Your task to perform on an android device: change the clock display to analog Image 0: 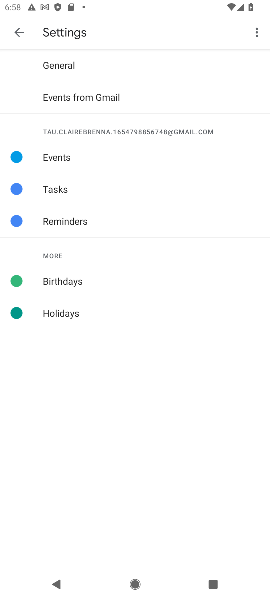
Step 0: drag from (213, 145) to (232, 94)
Your task to perform on an android device: change the clock display to analog Image 1: 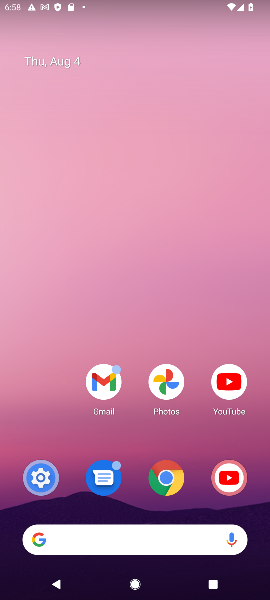
Step 1: drag from (136, 483) to (170, 13)
Your task to perform on an android device: change the clock display to analog Image 2: 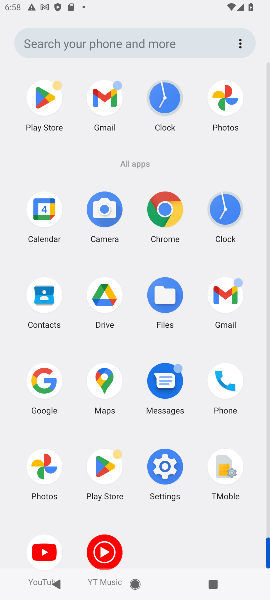
Step 2: click (218, 209)
Your task to perform on an android device: change the clock display to analog Image 3: 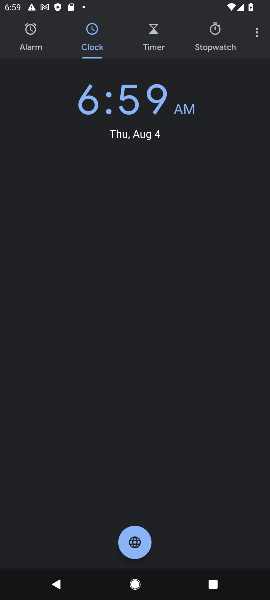
Step 3: click (254, 33)
Your task to perform on an android device: change the clock display to analog Image 4: 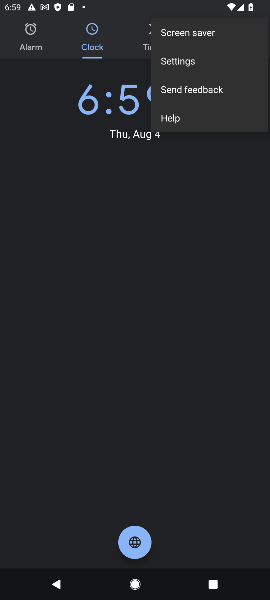
Step 4: click (202, 59)
Your task to perform on an android device: change the clock display to analog Image 5: 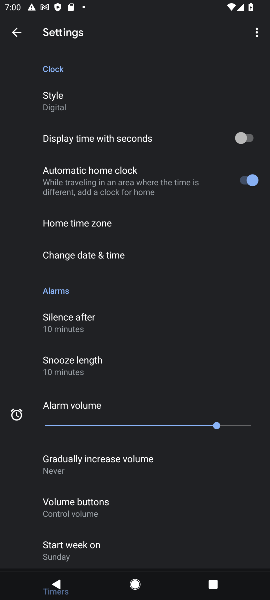
Step 5: click (78, 104)
Your task to perform on an android device: change the clock display to analog Image 6: 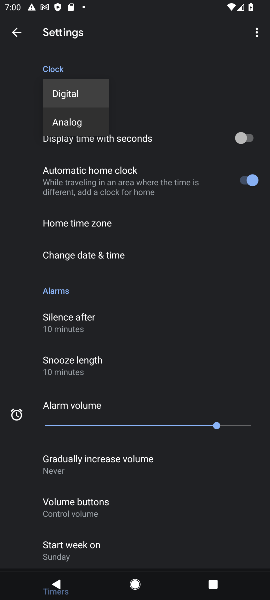
Step 6: click (77, 122)
Your task to perform on an android device: change the clock display to analog Image 7: 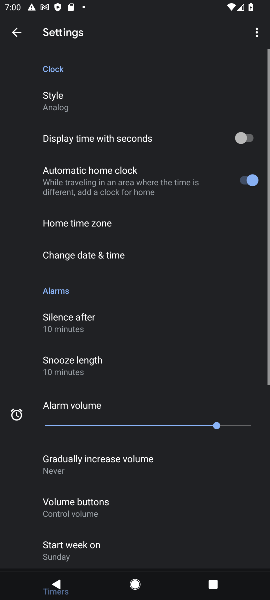
Step 7: task complete